Your task to perform on an android device: open app "Spotify: Music and Podcasts" (install if not already installed), go to login, and select forgot password Image 0: 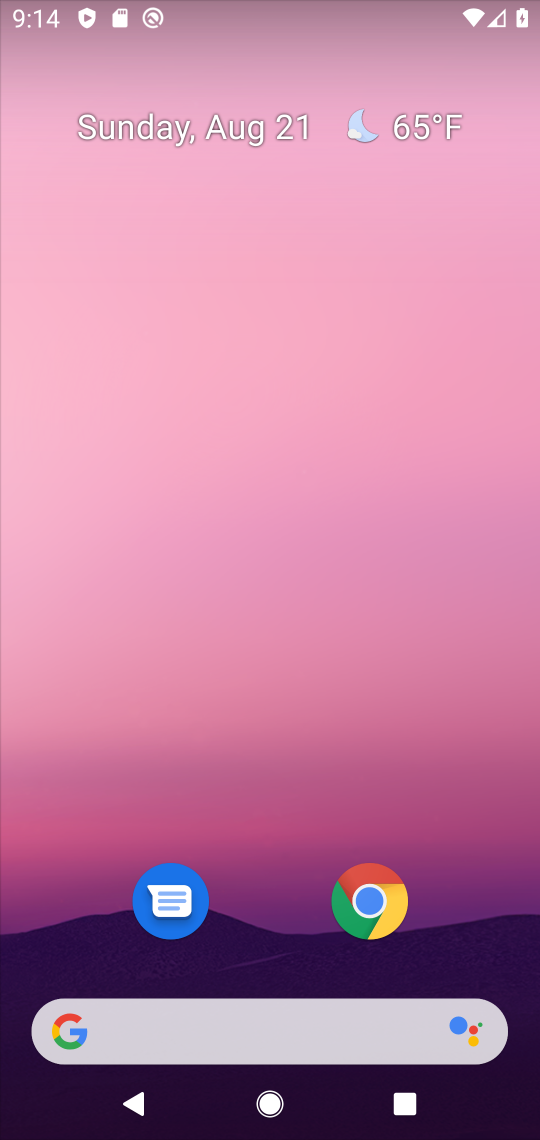
Step 0: press home button
Your task to perform on an android device: open app "Spotify: Music and Podcasts" (install if not already installed), go to login, and select forgot password Image 1: 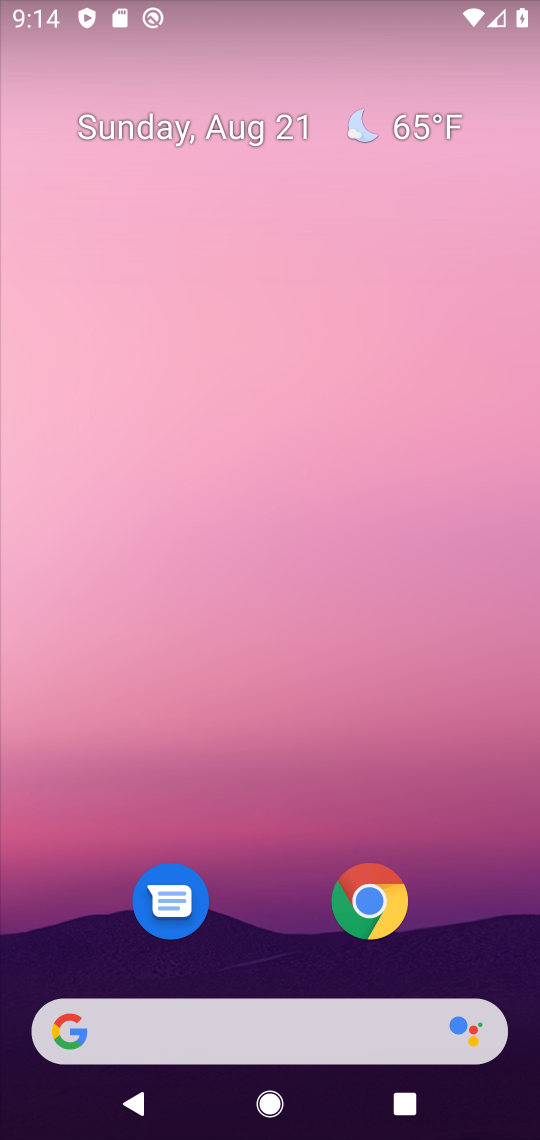
Step 1: drag from (463, 937) to (487, 116)
Your task to perform on an android device: open app "Spotify: Music and Podcasts" (install if not already installed), go to login, and select forgot password Image 2: 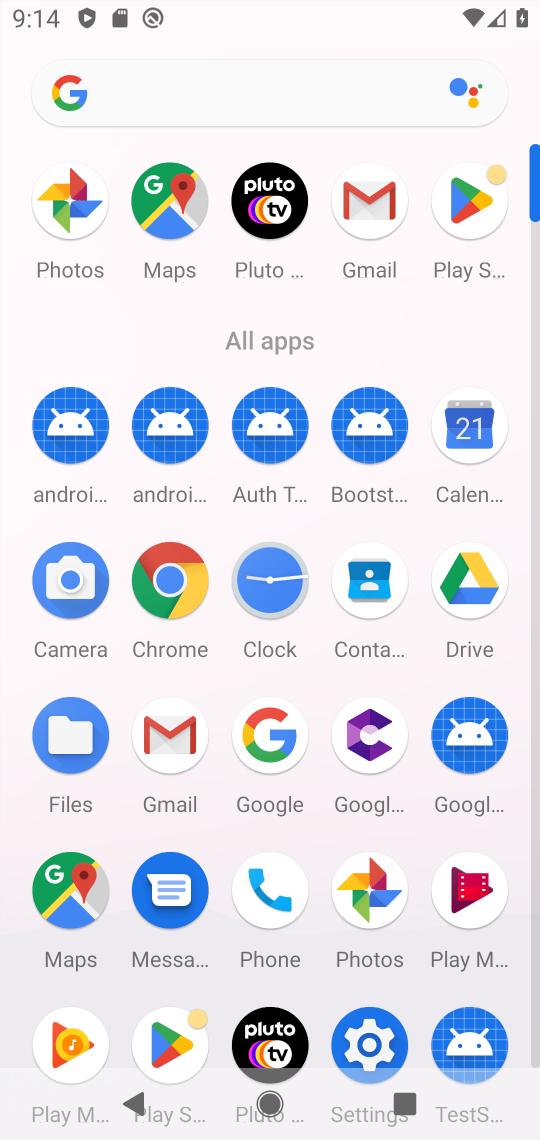
Step 2: click (467, 190)
Your task to perform on an android device: open app "Spotify: Music and Podcasts" (install if not already installed), go to login, and select forgot password Image 3: 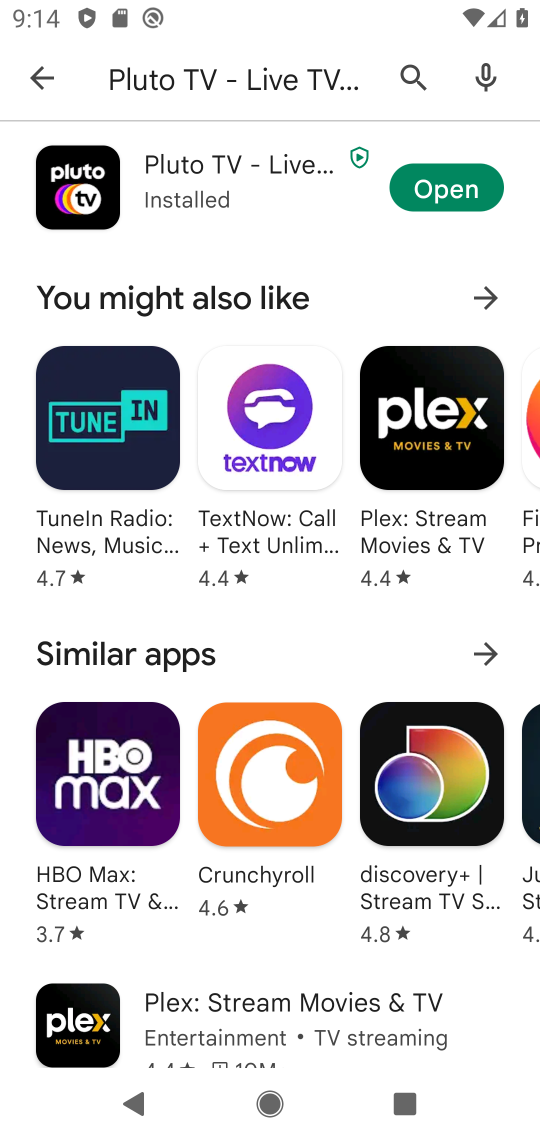
Step 3: press back button
Your task to perform on an android device: open app "Spotify: Music and Podcasts" (install if not already installed), go to login, and select forgot password Image 4: 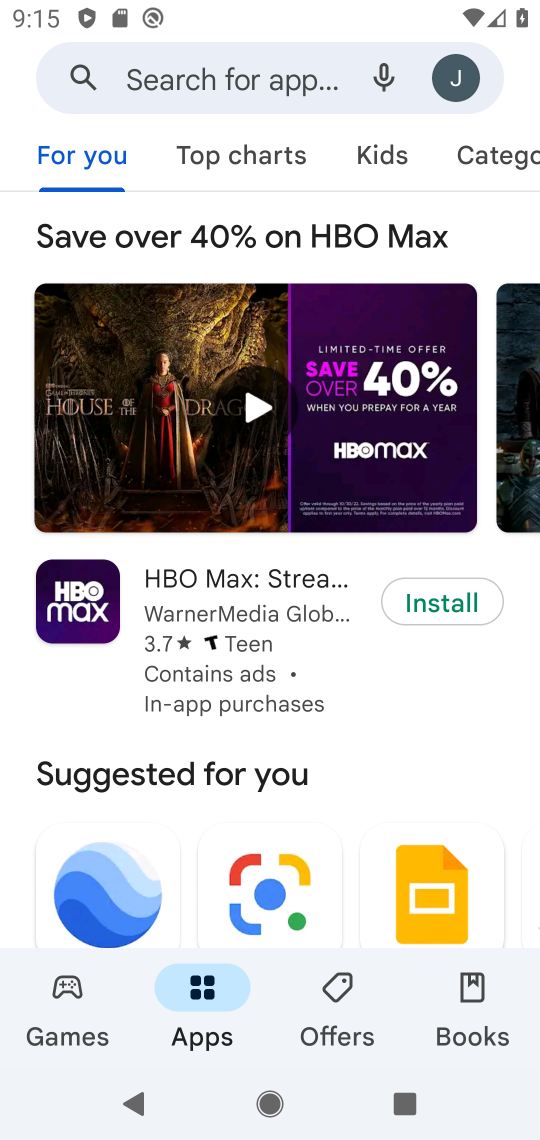
Step 4: type "Spotify: Music and Podcasts"
Your task to perform on an android device: open app "Spotify: Music and Podcasts" (install if not already installed), go to login, and select forgot password Image 5: 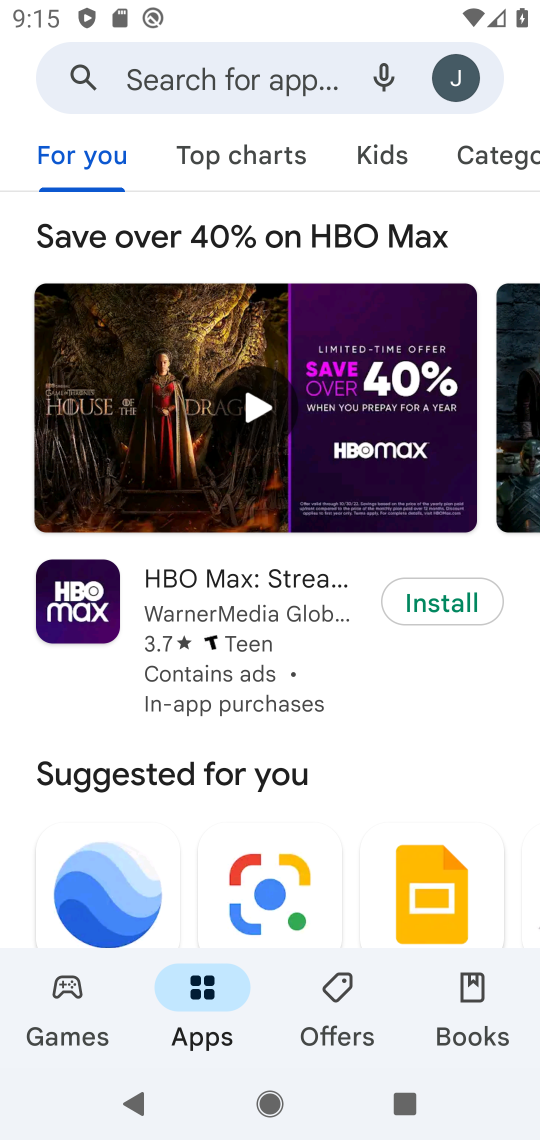
Step 5: press enter
Your task to perform on an android device: open app "Spotify: Music and Podcasts" (install if not already installed), go to login, and select forgot password Image 6: 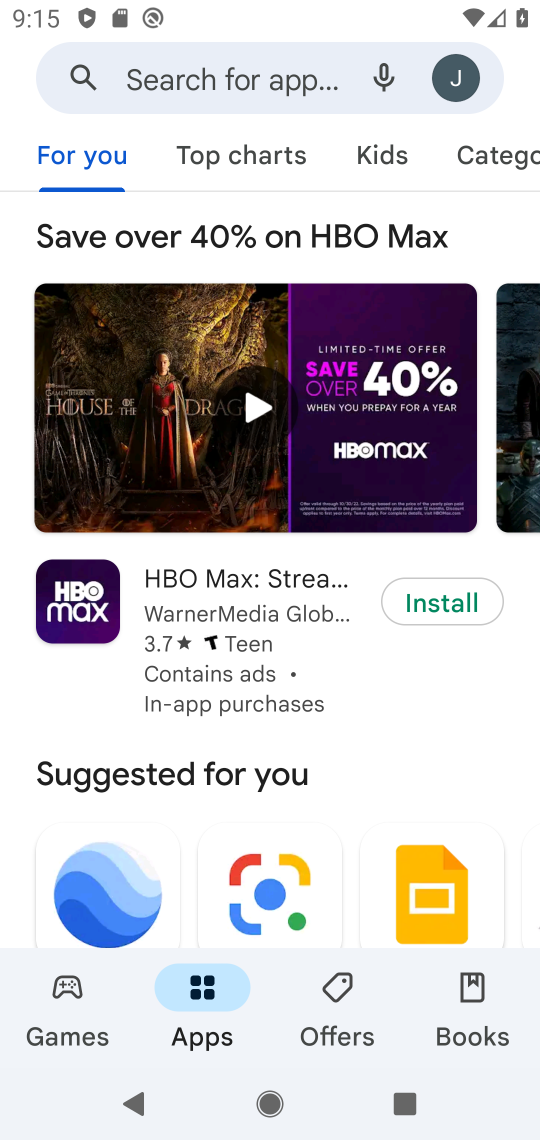
Step 6: click (166, 74)
Your task to perform on an android device: open app "Spotify: Music and Podcasts" (install if not already installed), go to login, and select forgot password Image 7: 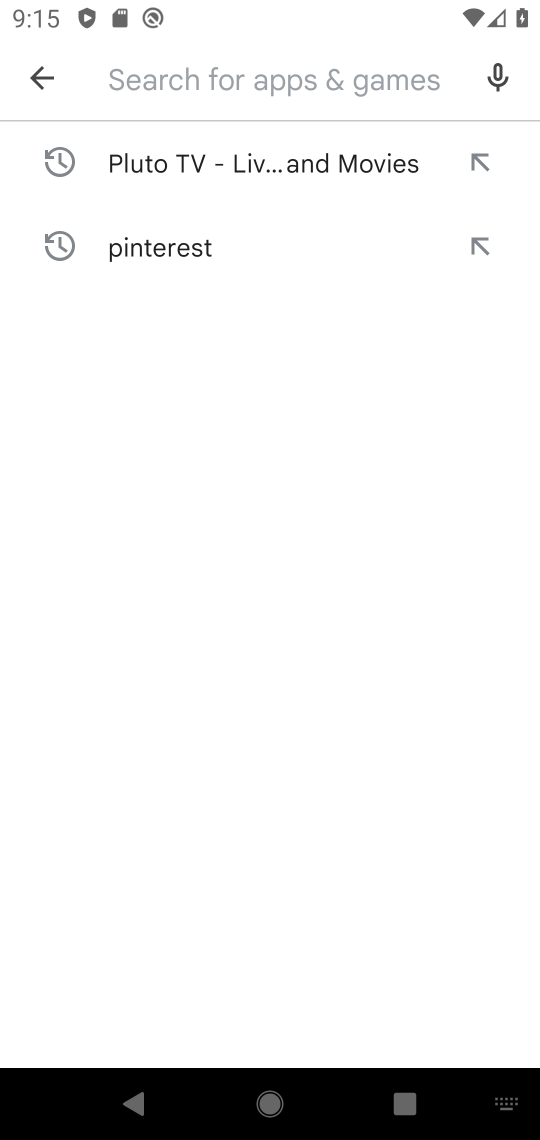
Step 7: type "Spotify: Music and Podcasts"
Your task to perform on an android device: open app "Spotify: Music and Podcasts" (install if not already installed), go to login, and select forgot password Image 8: 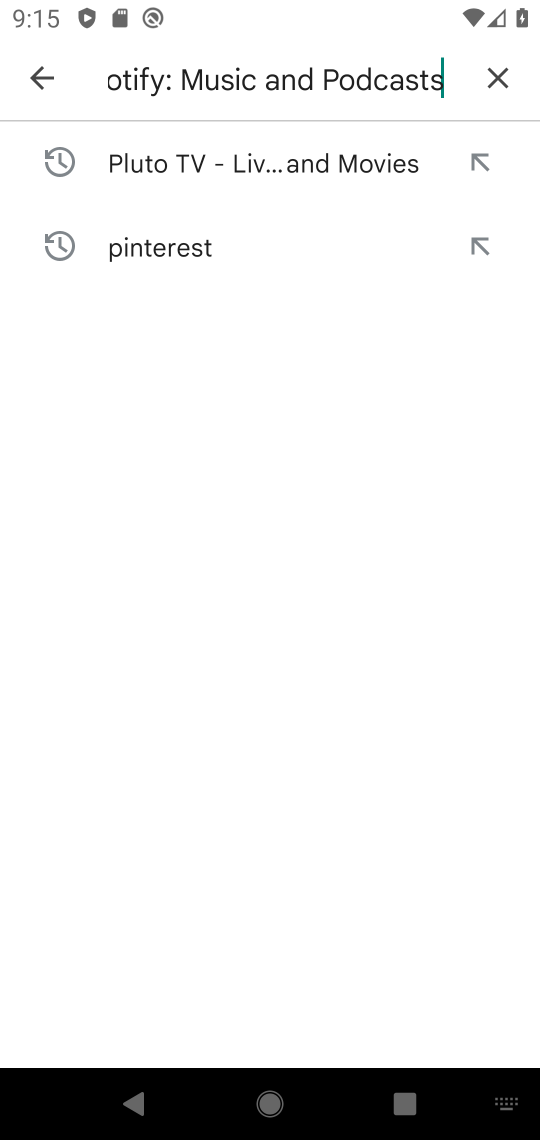
Step 8: press enter
Your task to perform on an android device: open app "Spotify: Music and Podcasts" (install if not already installed), go to login, and select forgot password Image 9: 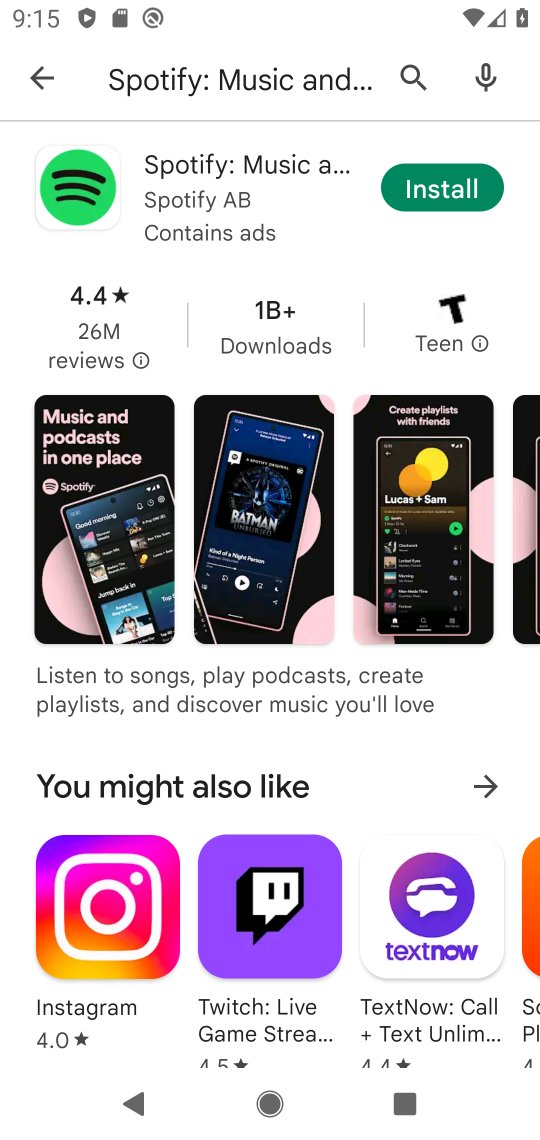
Step 9: click (461, 191)
Your task to perform on an android device: open app "Spotify: Music and Podcasts" (install if not already installed), go to login, and select forgot password Image 10: 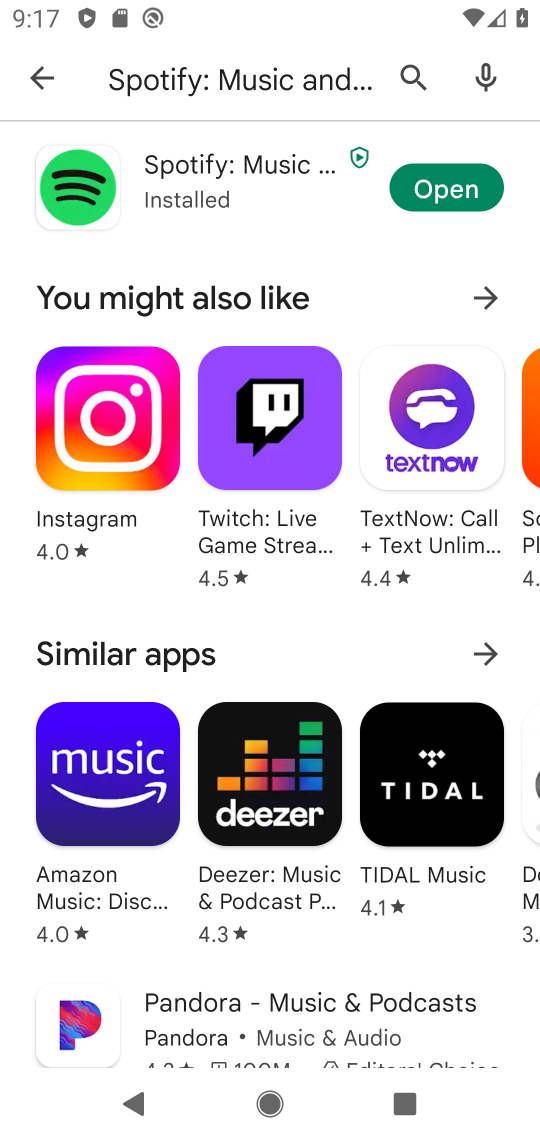
Step 10: click (449, 183)
Your task to perform on an android device: open app "Spotify: Music and Podcasts" (install if not already installed), go to login, and select forgot password Image 11: 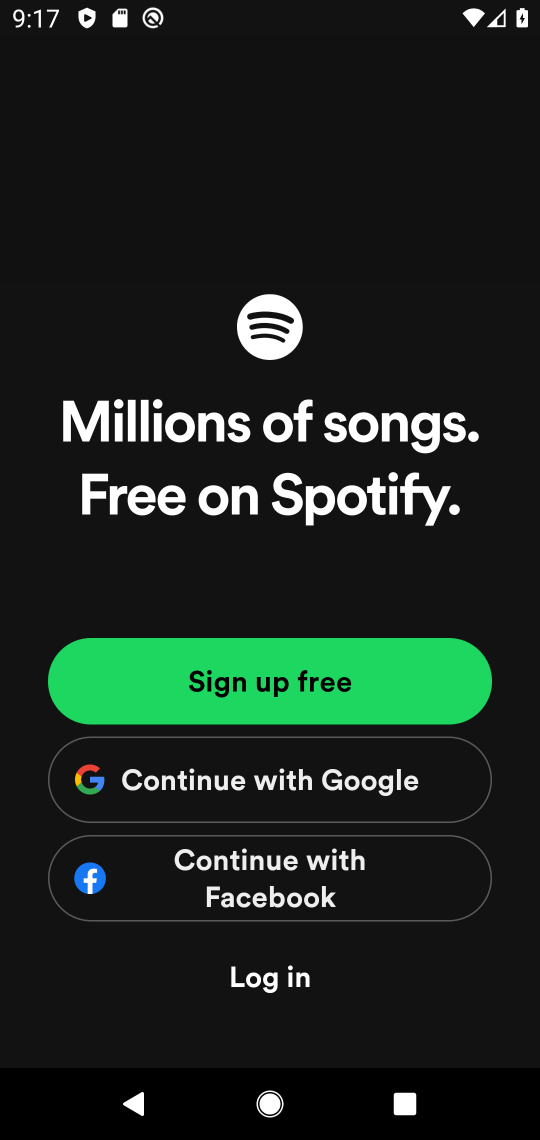
Step 11: click (275, 985)
Your task to perform on an android device: open app "Spotify: Music and Podcasts" (install if not already installed), go to login, and select forgot password Image 12: 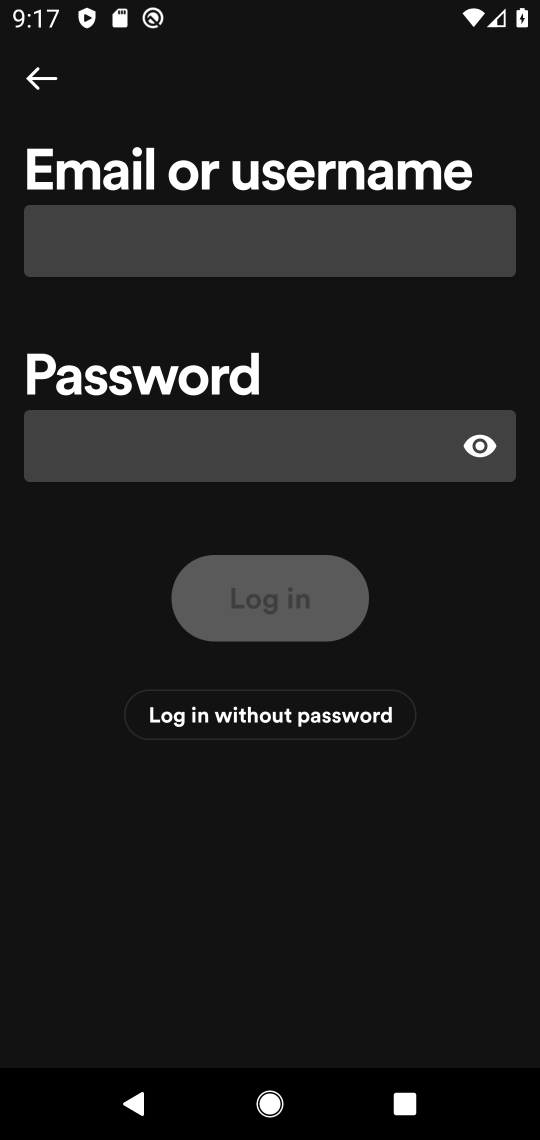
Step 12: task complete